Your task to perform on an android device: Go to calendar. Show me events next week Image 0: 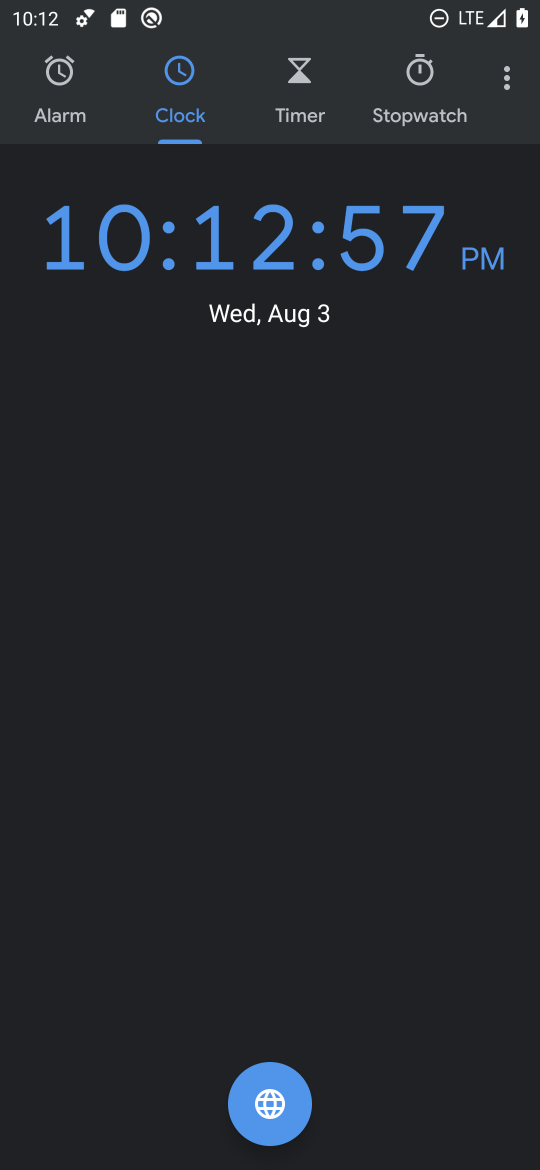
Step 0: press home button
Your task to perform on an android device: Go to calendar. Show me events next week Image 1: 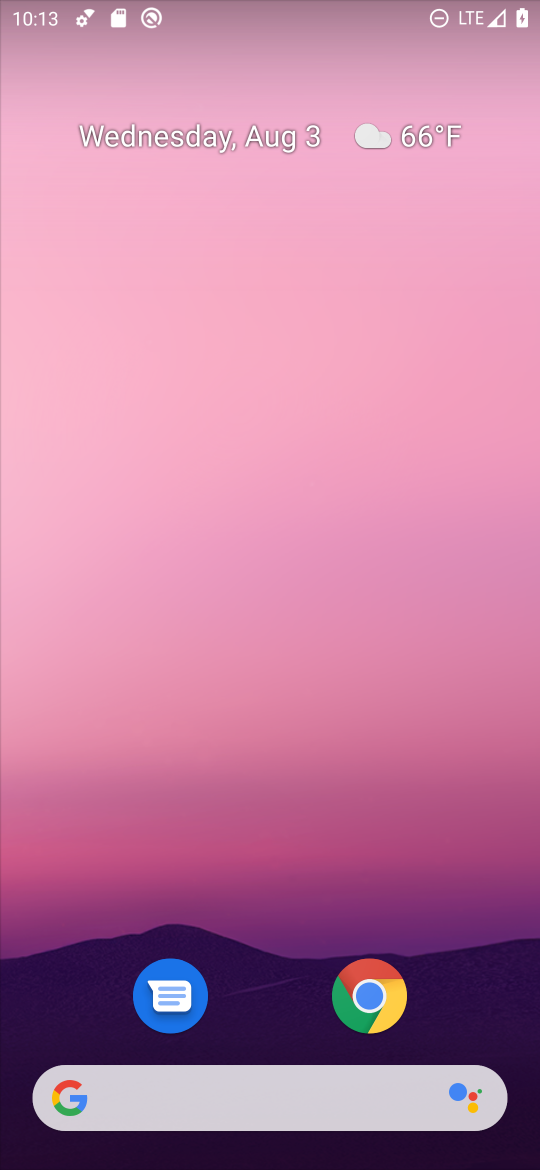
Step 1: drag from (277, 897) to (248, 0)
Your task to perform on an android device: Go to calendar. Show me events next week Image 2: 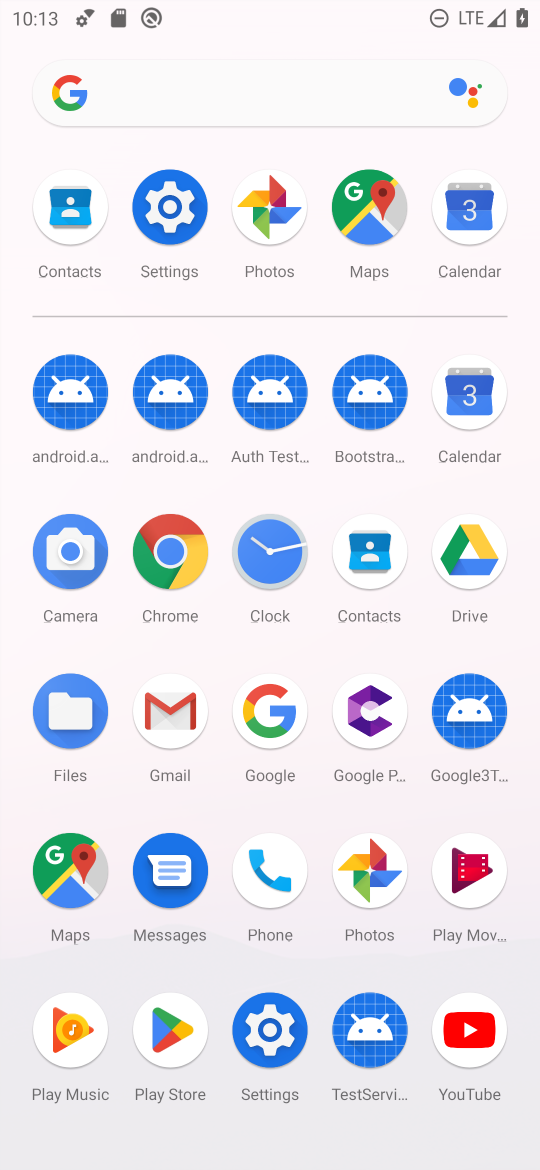
Step 2: click (467, 215)
Your task to perform on an android device: Go to calendar. Show me events next week Image 3: 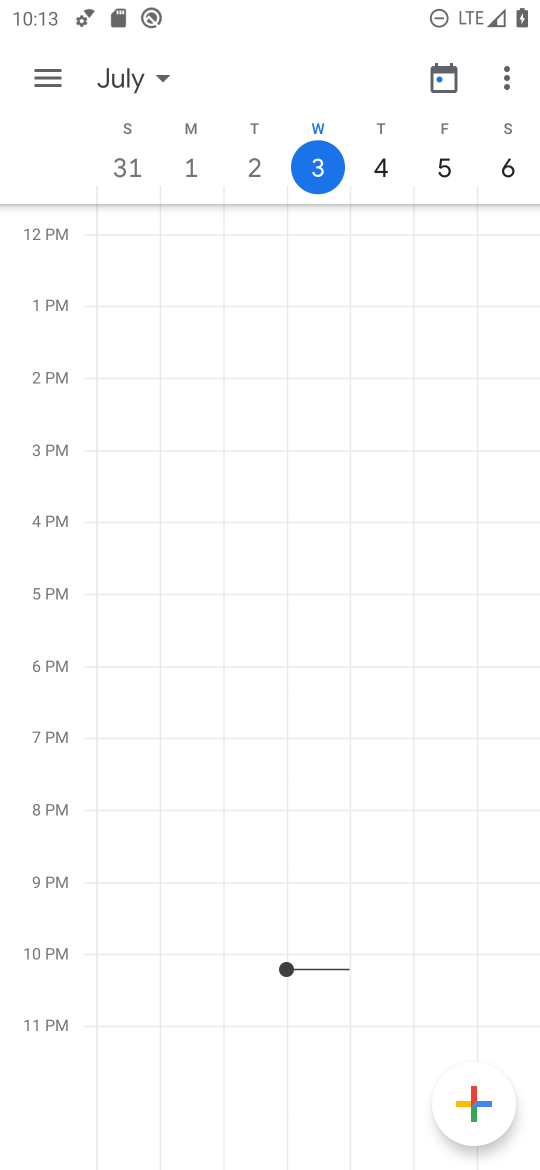
Step 3: task complete